Your task to perform on an android device: Open Google Chrome and open the bookmarks view Image 0: 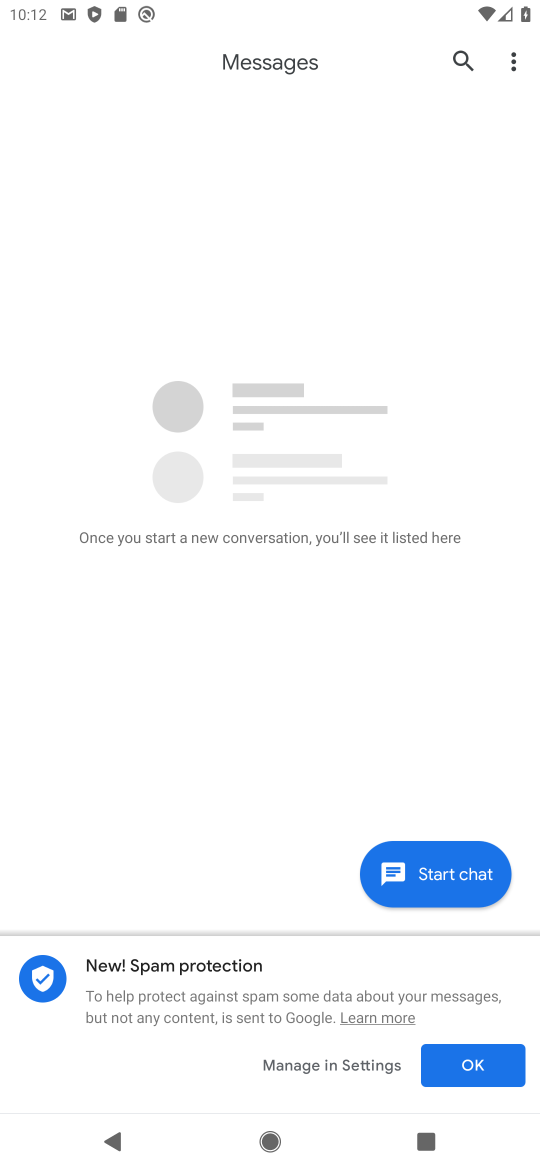
Step 0: press home button
Your task to perform on an android device: Open Google Chrome and open the bookmarks view Image 1: 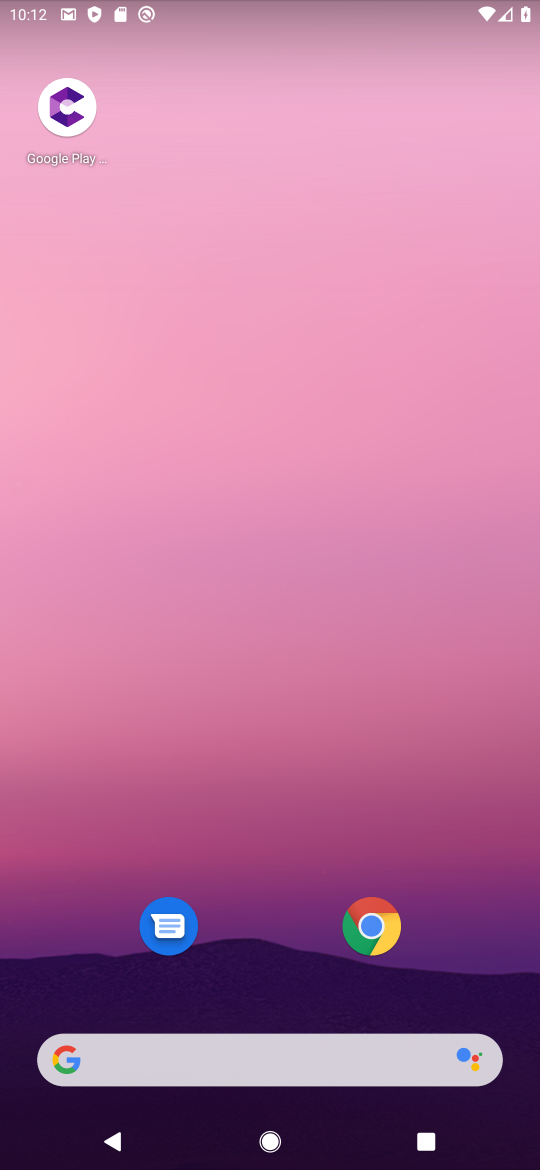
Step 1: drag from (512, 965) to (424, 123)
Your task to perform on an android device: Open Google Chrome and open the bookmarks view Image 2: 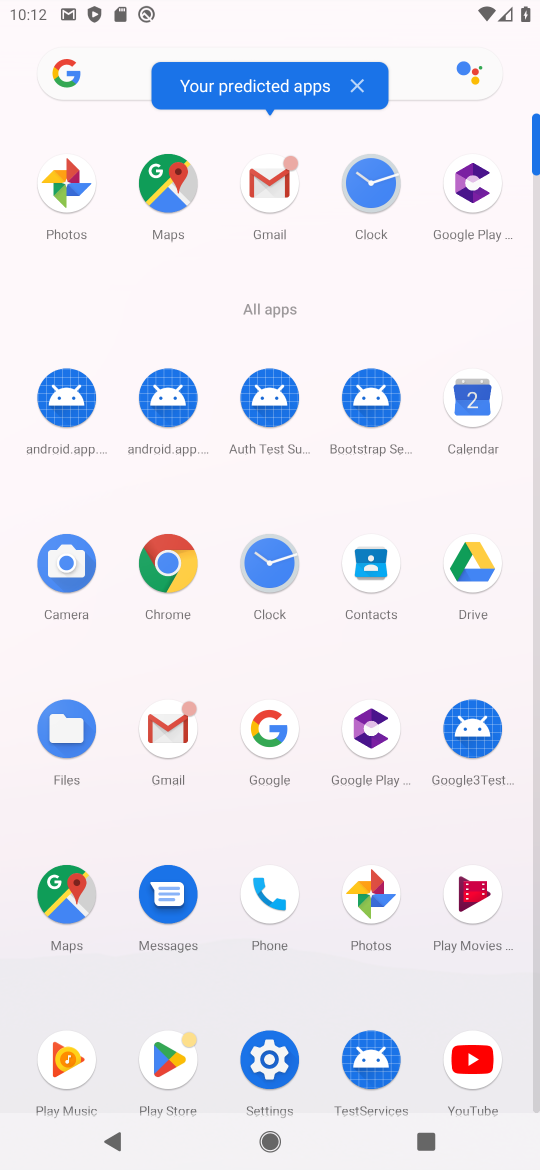
Step 2: click (173, 594)
Your task to perform on an android device: Open Google Chrome and open the bookmarks view Image 3: 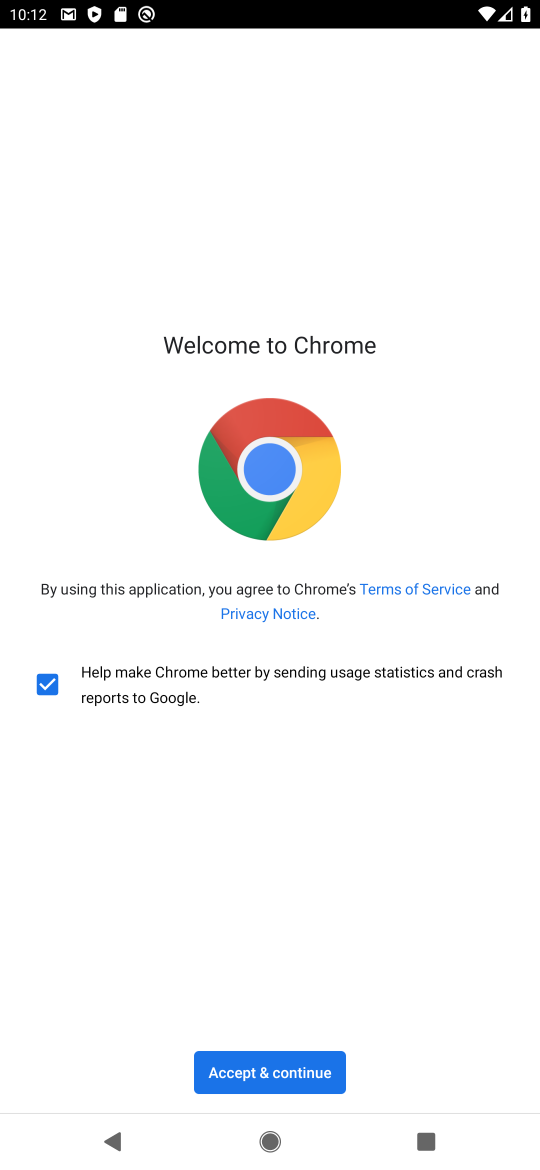
Step 3: click (267, 1078)
Your task to perform on an android device: Open Google Chrome and open the bookmarks view Image 4: 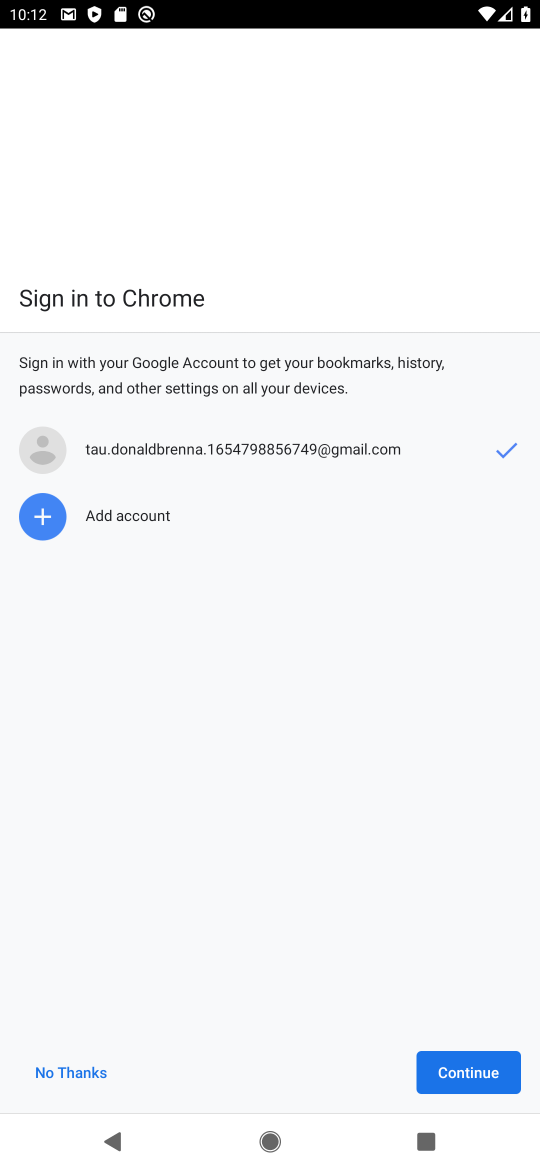
Step 4: click (476, 1074)
Your task to perform on an android device: Open Google Chrome and open the bookmarks view Image 5: 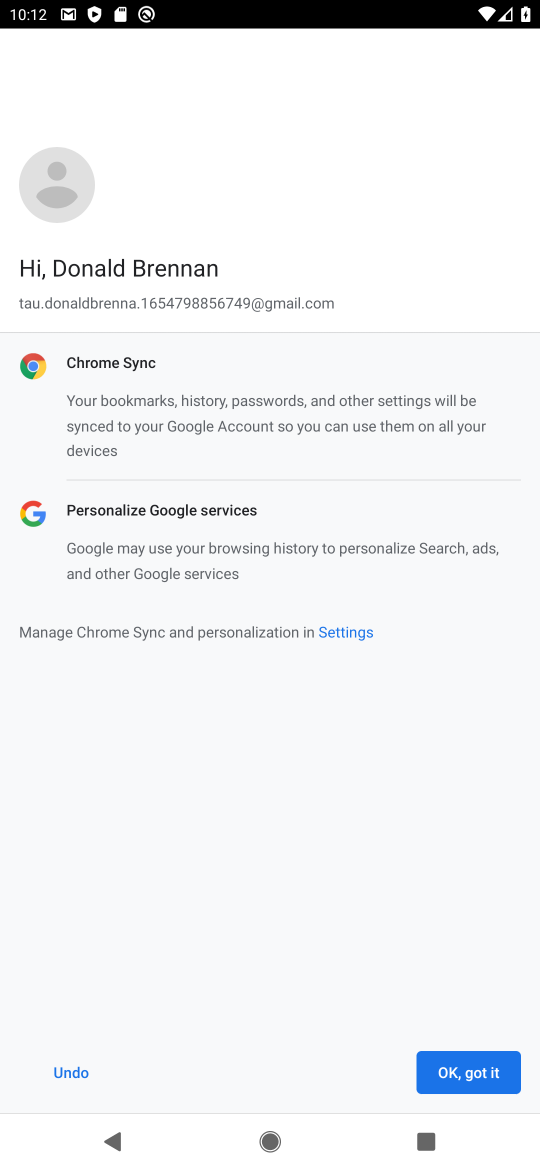
Step 5: click (470, 1077)
Your task to perform on an android device: Open Google Chrome and open the bookmarks view Image 6: 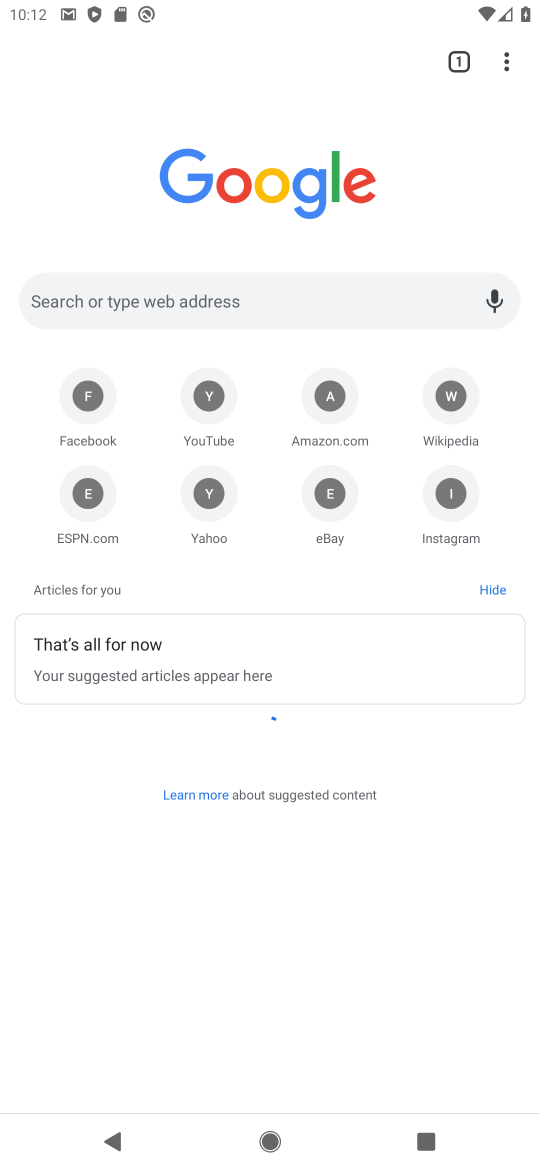
Step 6: click (514, 61)
Your task to perform on an android device: Open Google Chrome and open the bookmarks view Image 7: 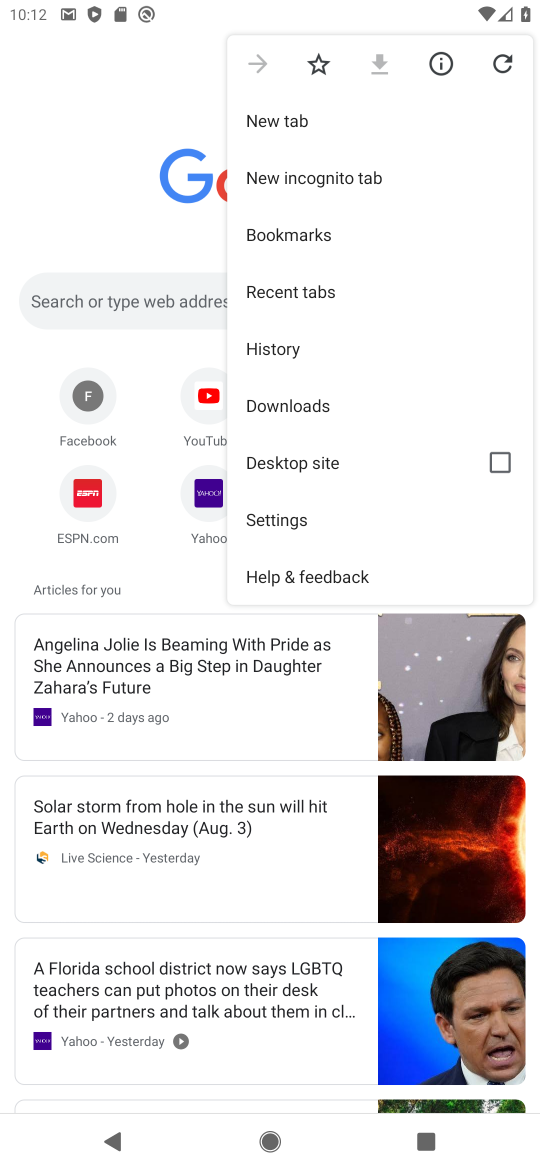
Step 7: click (340, 231)
Your task to perform on an android device: Open Google Chrome and open the bookmarks view Image 8: 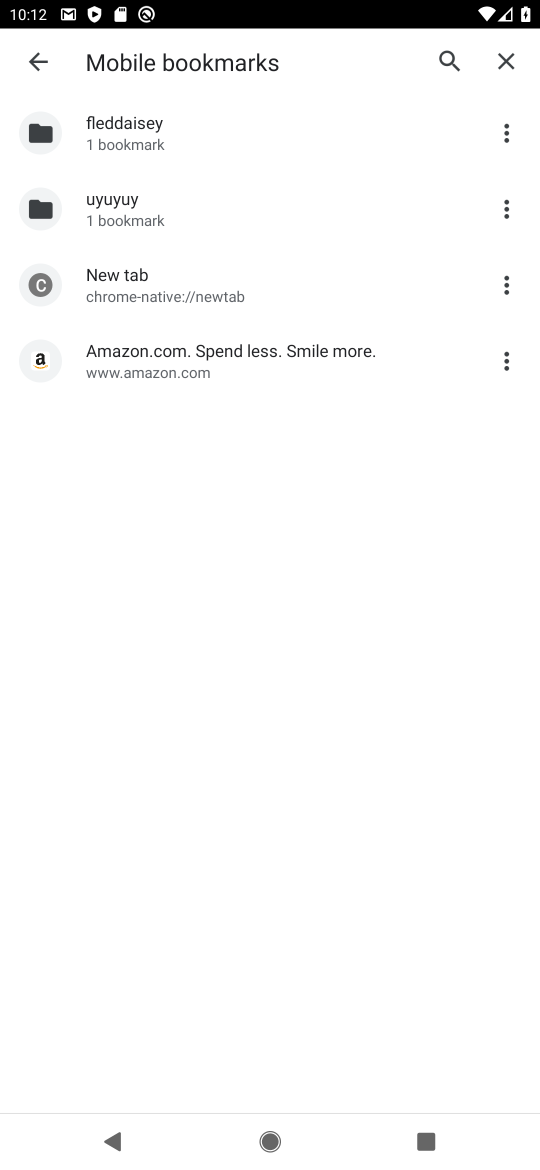
Step 8: task complete